Your task to perform on an android device: turn on wifi Image 0: 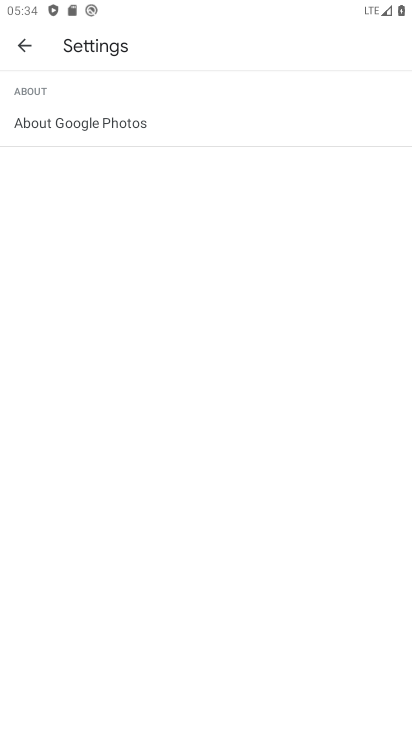
Step 0: drag from (194, 10) to (229, 314)
Your task to perform on an android device: turn on wifi Image 1: 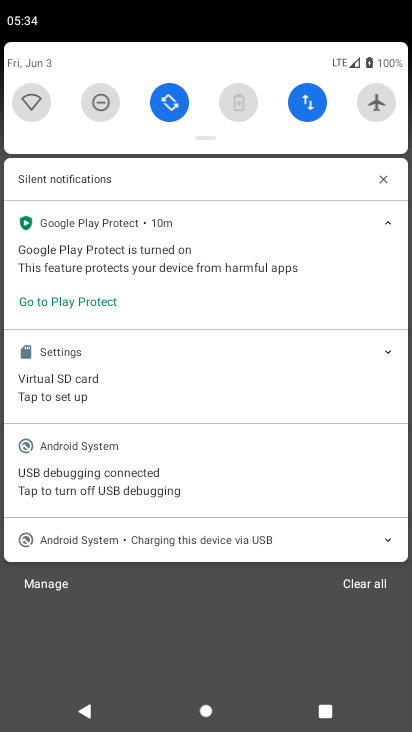
Step 1: click (41, 109)
Your task to perform on an android device: turn on wifi Image 2: 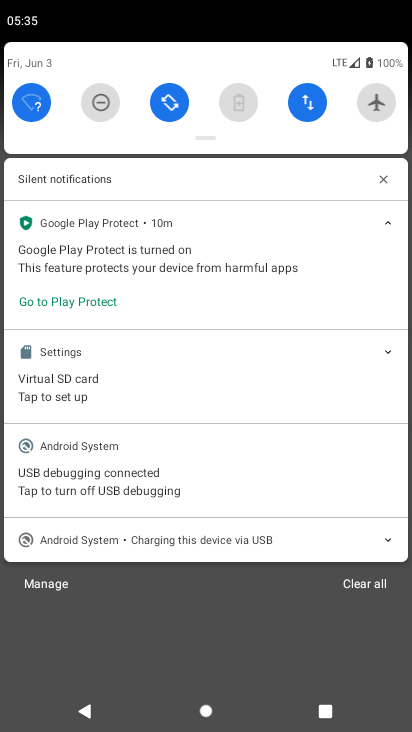
Step 2: task complete